Your task to perform on an android device: See recent photos Image 0: 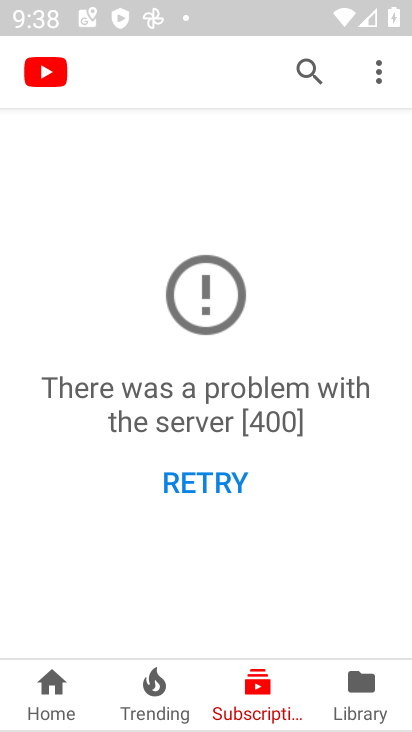
Step 0: press back button
Your task to perform on an android device: See recent photos Image 1: 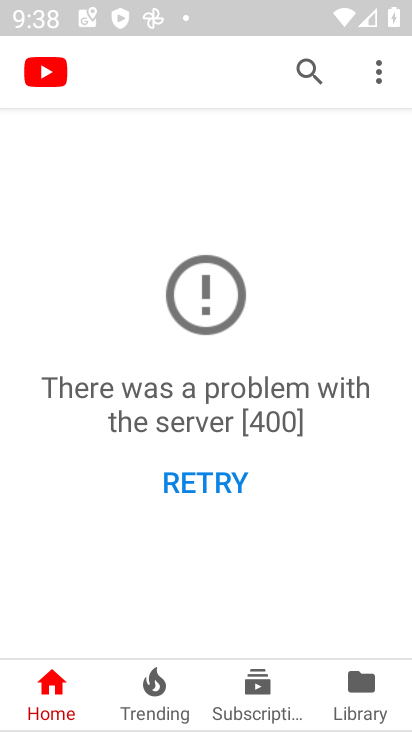
Step 1: press back button
Your task to perform on an android device: See recent photos Image 2: 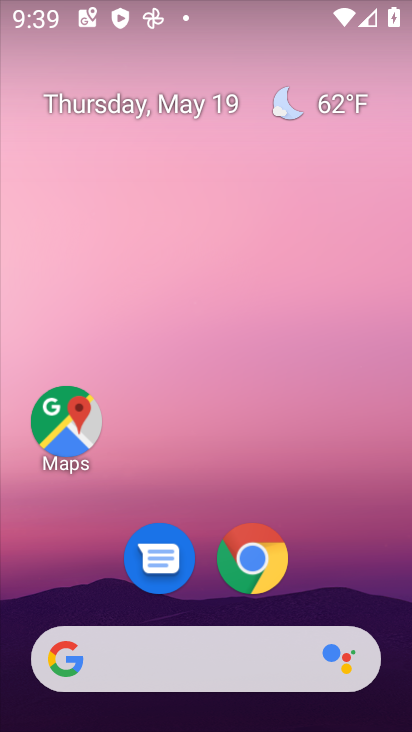
Step 2: drag from (360, 589) to (202, 79)
Your task to perform on an android device: See recent photos Image 3: 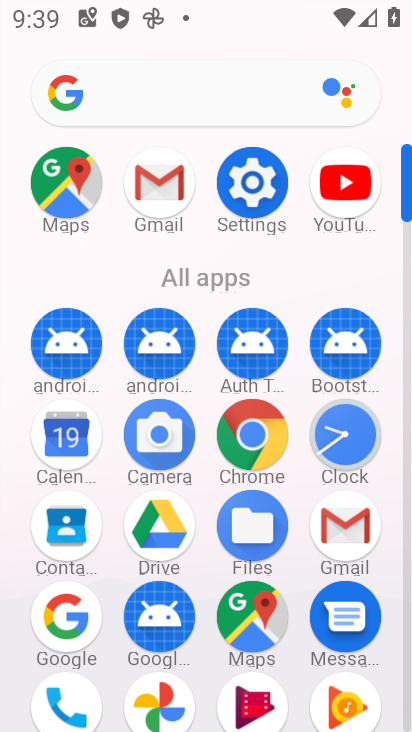
Step 3: drag from (203, 575) to (191, 327)
Your task to perform on an android device: See recent photos Image 4: 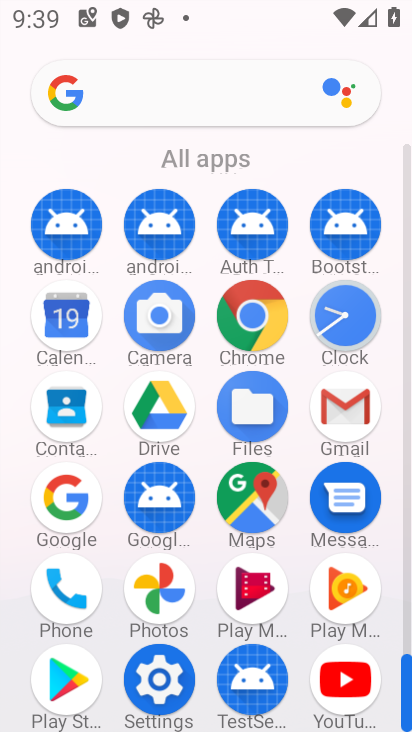
Step 4: click (159, 591)
Your task to perform on an android device: See recent photos Image 5: 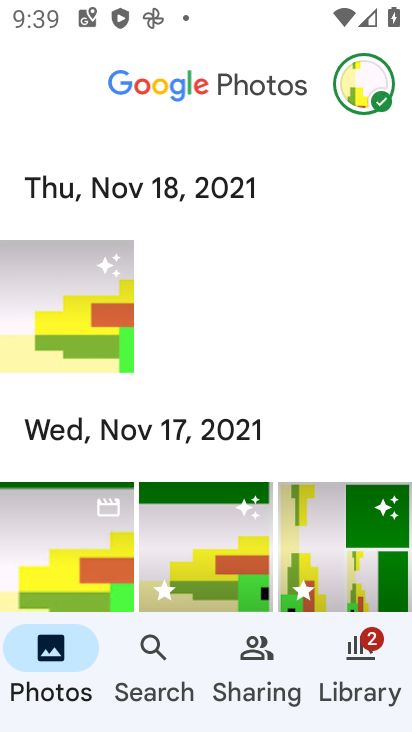
Step 5: click (61, 327)
Your task to perform on an android device: See recent photos Image 6: 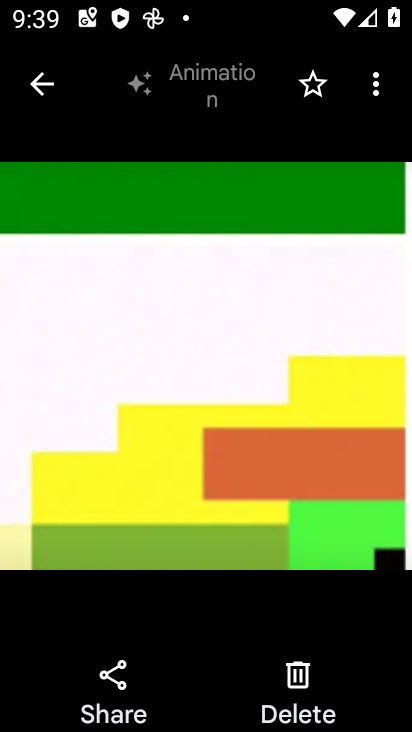
Step 6: task complete